Your task to perform on an android device: stop showing notifications on the lock screen Image 0: 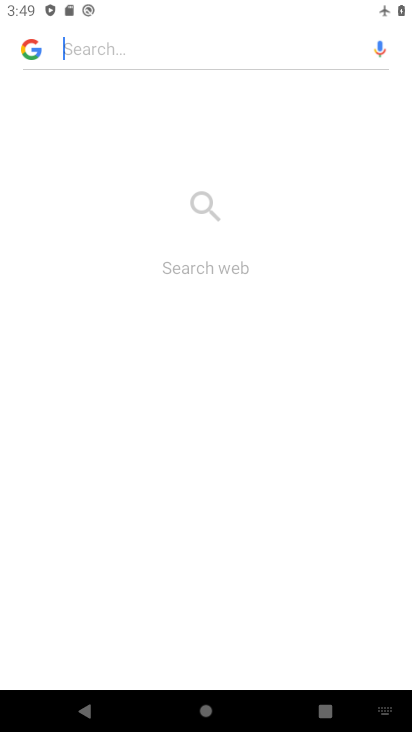
Step 0: press home button
Your task to perform on an android device: stop showing notifications on the lock screen Image 1: 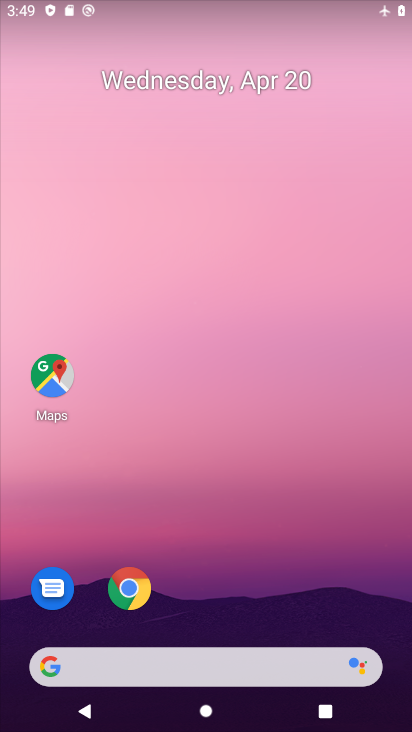
Step 1: drag from (205, 364) to (219, 67)
Your task to perform on an android device: stop showing notifications on the lock screen Image 2: 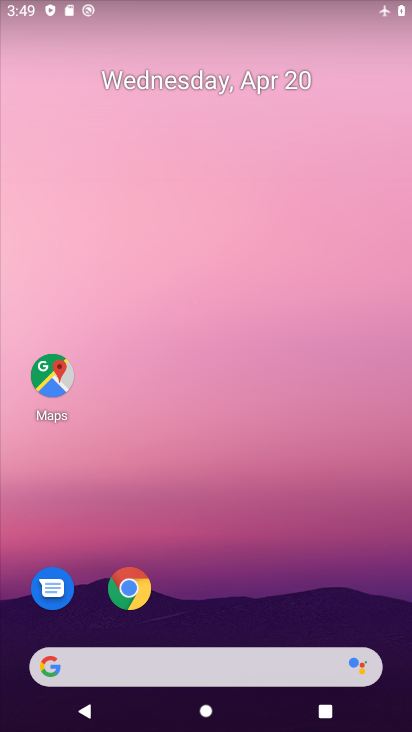
Step 2: drag from (211, 448) to (245, 55)
Your task to perform on an android device: stop showing notifications on the lock screen Image 3: 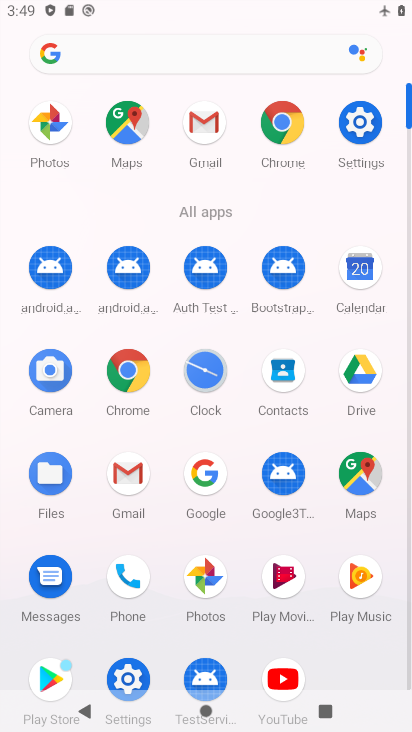
Step 3: click (367, 119)
Your task to perform on an android device: stop showing notifications on the lock screen Image 4: 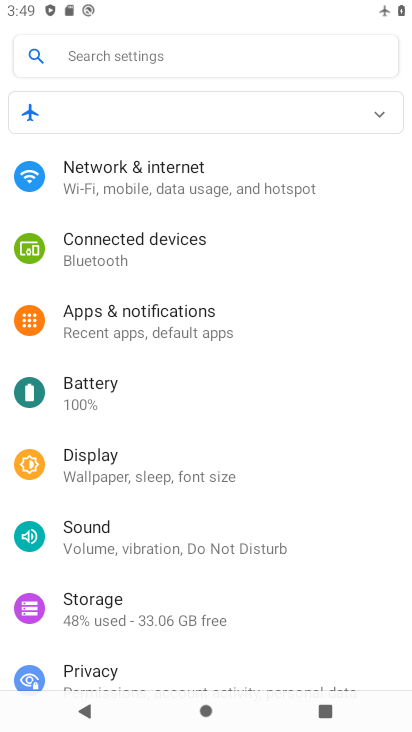
Step 4: click (171, 315)
Your task to perform on an android device: stop showing notifications on the lock screen Image 5: 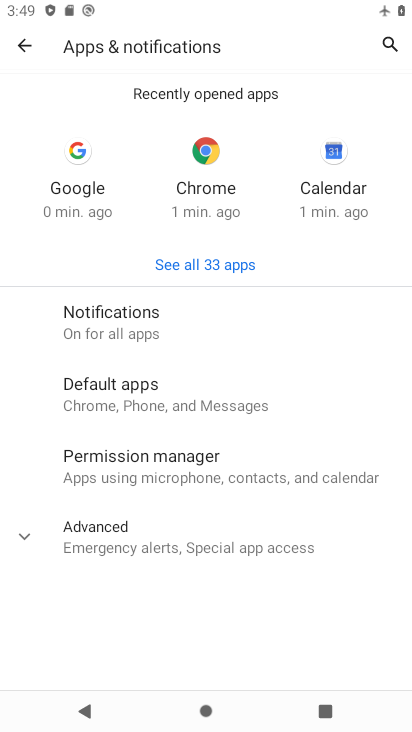
Step 5: click (110, 540)
Your task to perform on an android device: stop showing notifications on the lock screen Image 6: 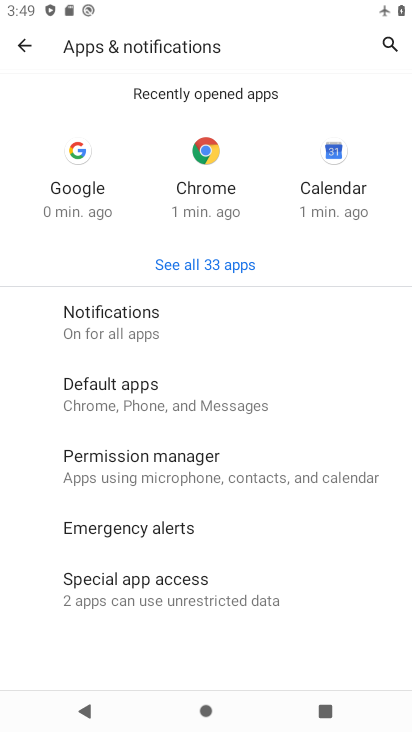
Step 6: click (128, 339)
Your task to perform on an android device: stop showing notifications on the lock screen Image 7: 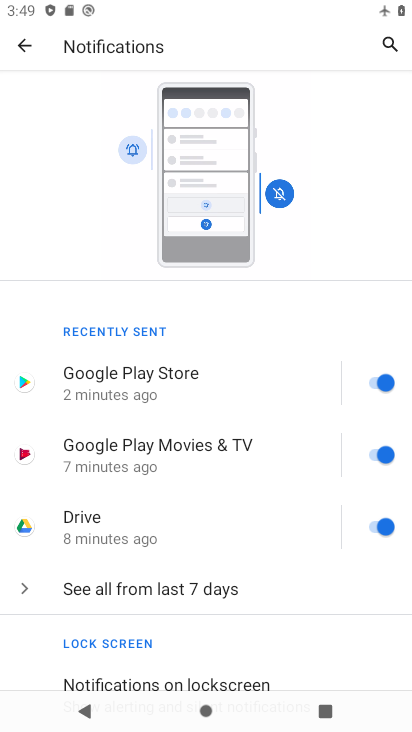
Step 7: drag from (179, 638) to (175, 259)
Your task to perform on an android device: stop showing notifications on the lock screen Image 8: 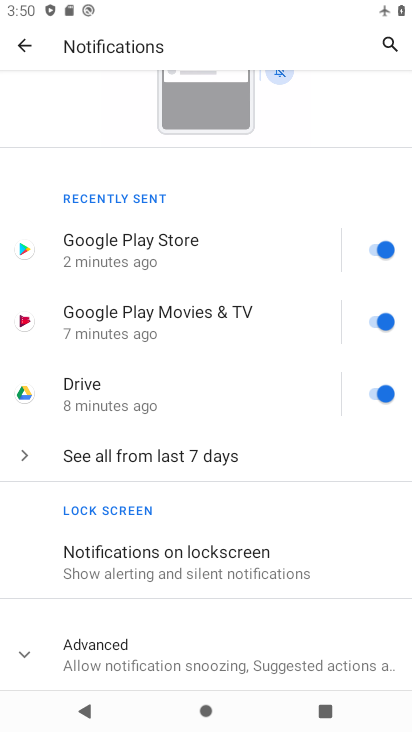
Step 8: click (177, 559)
Your task to perform on an android device: stop showing notifications on the lock screen Image 9: 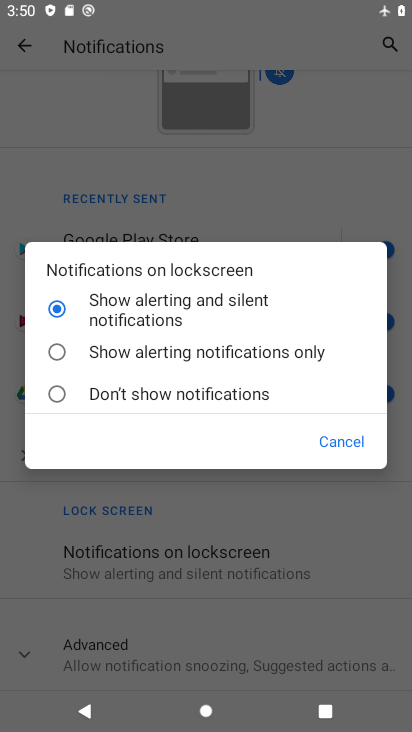
Step 9: click (129, 399)
Your task to perform on an android device: stop showing notifications on the lock screen Image 10: 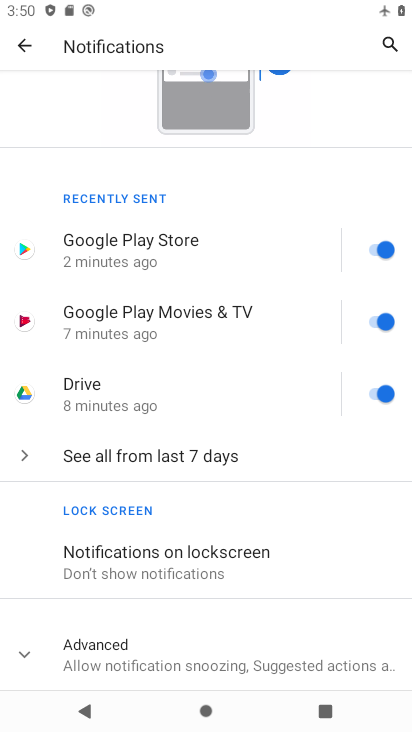
Step 10: task complete